Your task to perform on an android device: open app "Messenger Lite" (install if not already installed) and enter user name: "cataclysmic@outlook.com" and password: "victoriously" Image 0: 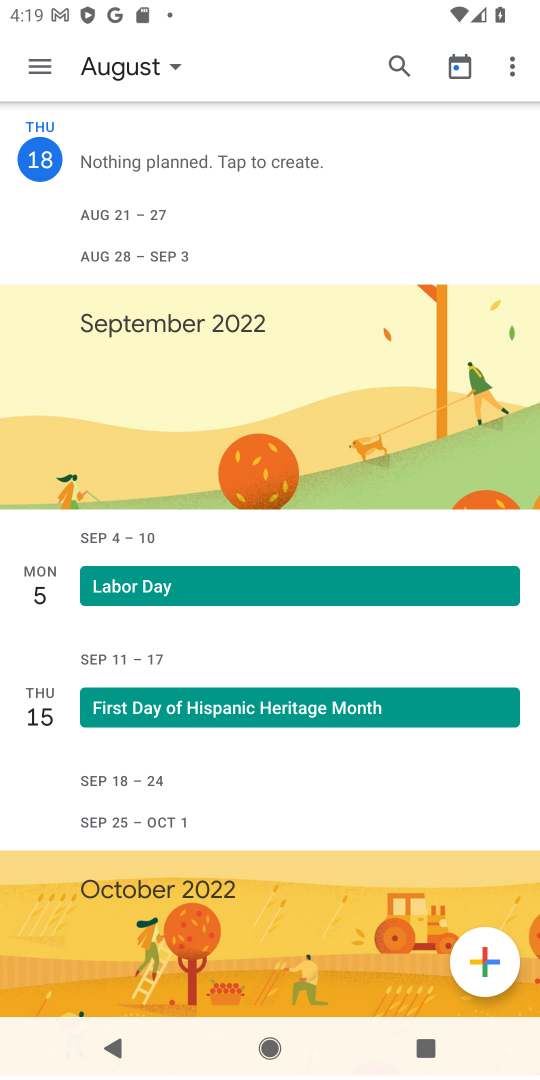
Step 0: press home button
Your task to perform on an android device: open app "Messenger Lite" (install if not already installed) and enter user name: "cataclysmic@outlook.com" and password: "victoriously" Image 1: 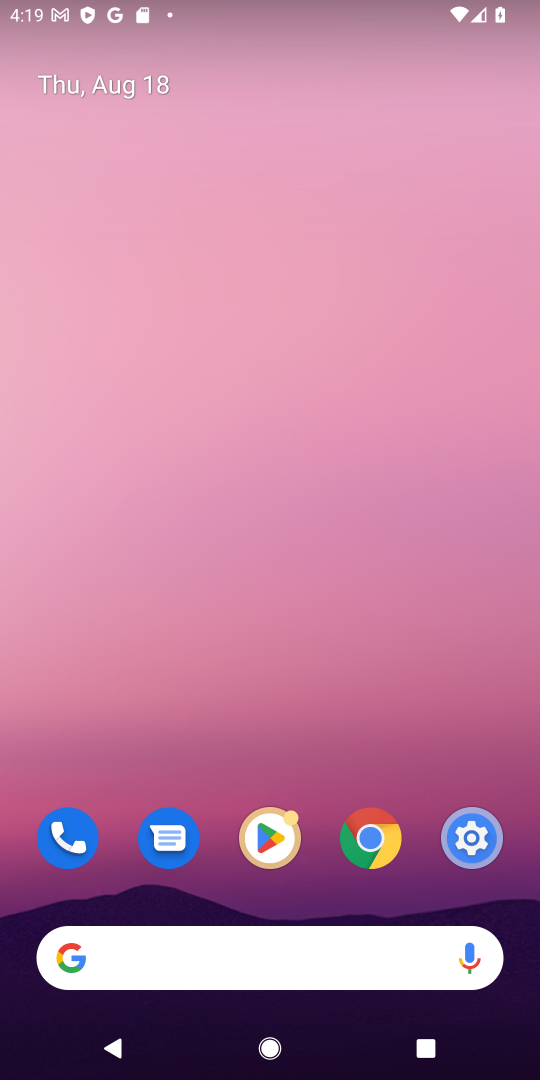
Step 1: drag from (239, 969) to (207, 122)
Your task to perform on an android device: open app "Messenger Lite" (install if not already installed) and enter user name: "cataclysmic@outlook.com" and password: "victoriously" Image 2: 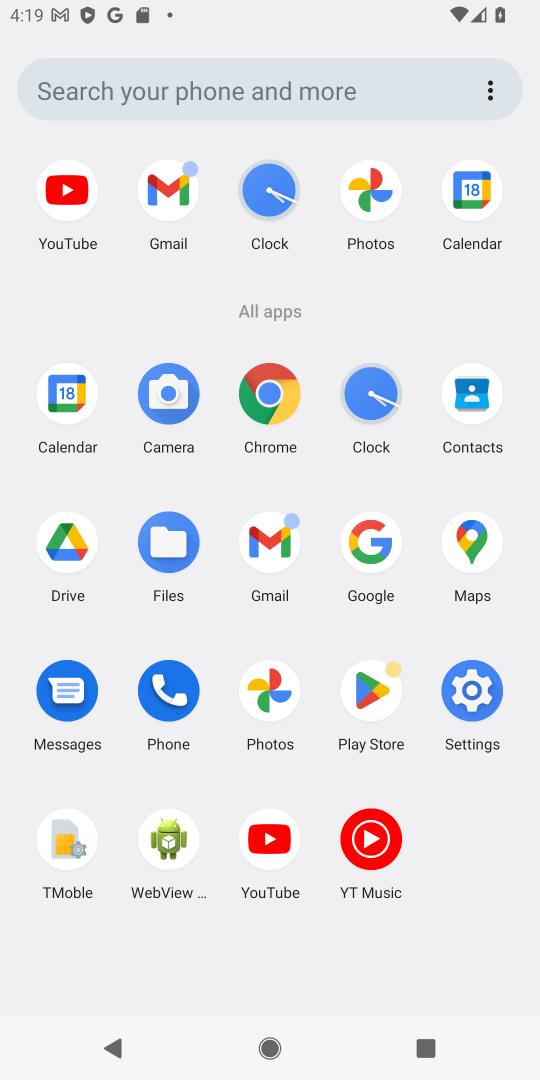
Step 2: click (371, 689)
Your task to perform on an android device: open app "Messenger Lite" (install if not already installed) and enter user name: "cataclysmic@outlook.com" and password: "victoriously" Image 3: 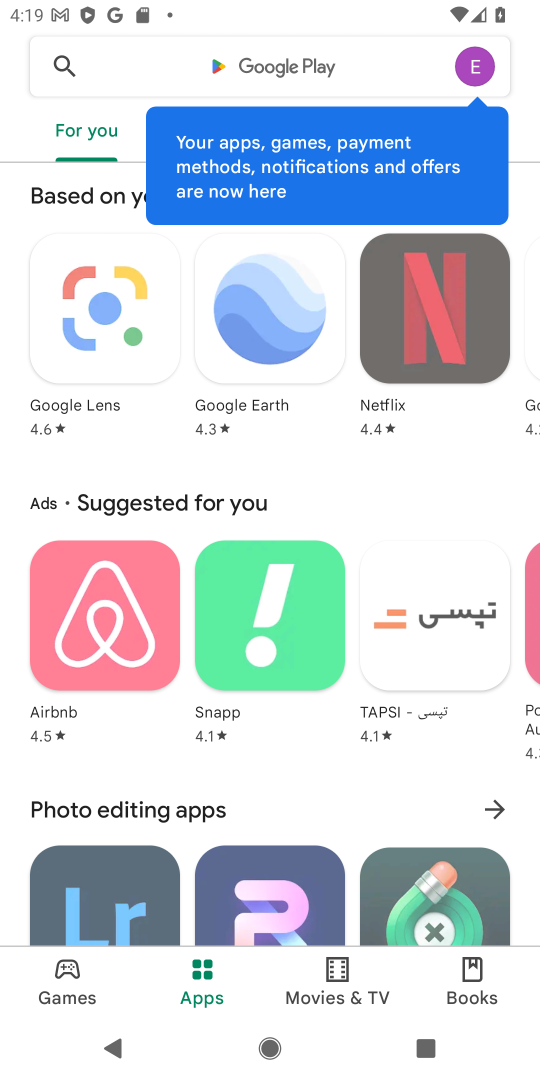
Step 3: click (270, 74)
Your task to perform on an android device: open app "Messenger Lite" (install if not already installed) and enter user name: "cataclysmic@outlook.com" and password: "victoriously" Image 4: 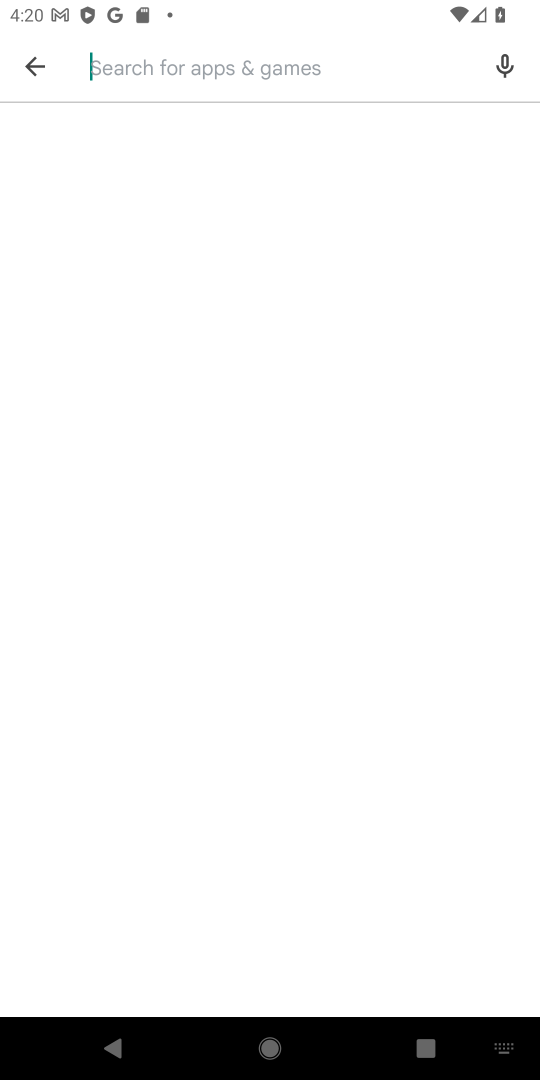
Step 4: type "Messenger Lite"
Your task to perform on an android device: open app "Messenger Lite" (install if not already installed) and enter user name: "cataclysmic@outlook.com" and password: "victoriously" Image 5: 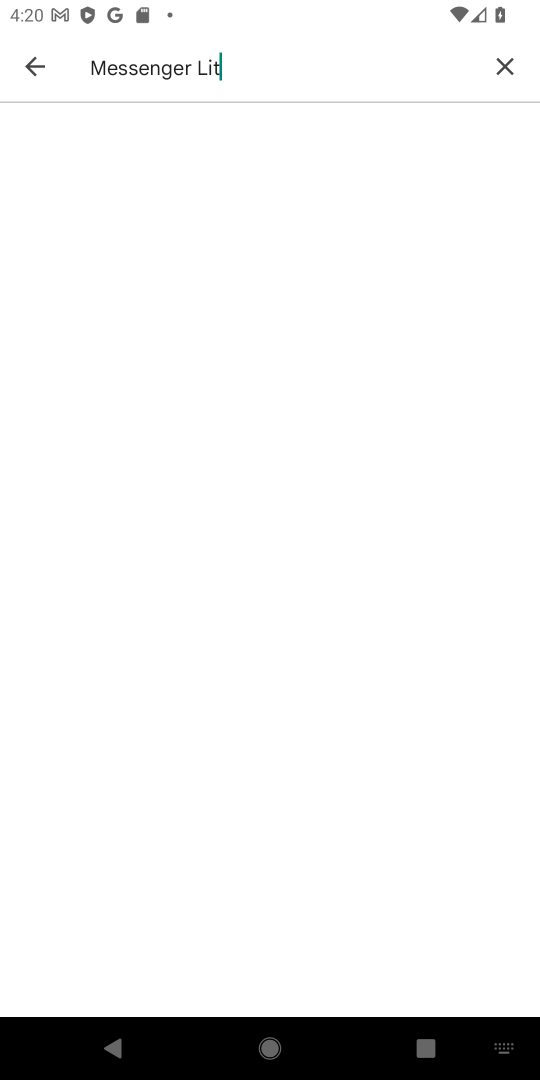
Step 5: type ""
Your task to perform on an android device: open app "Messenger Lite" (install if not already installed) and enter user name: "cataclysmic@outlook.com" and password: "victoriously" Image 6: 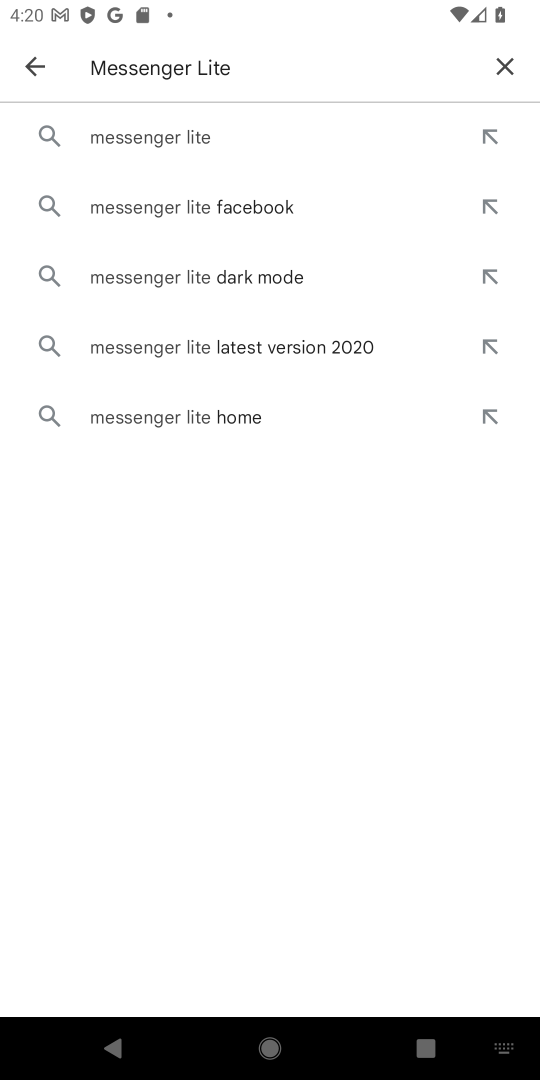
Step 6: click (178, 145)
Your task to perform on an android device: open app "Messenger Lite" (install if not already installed) and enter user name: "cataclysmic@outlook.com" and password: "victoriously" Image 7: 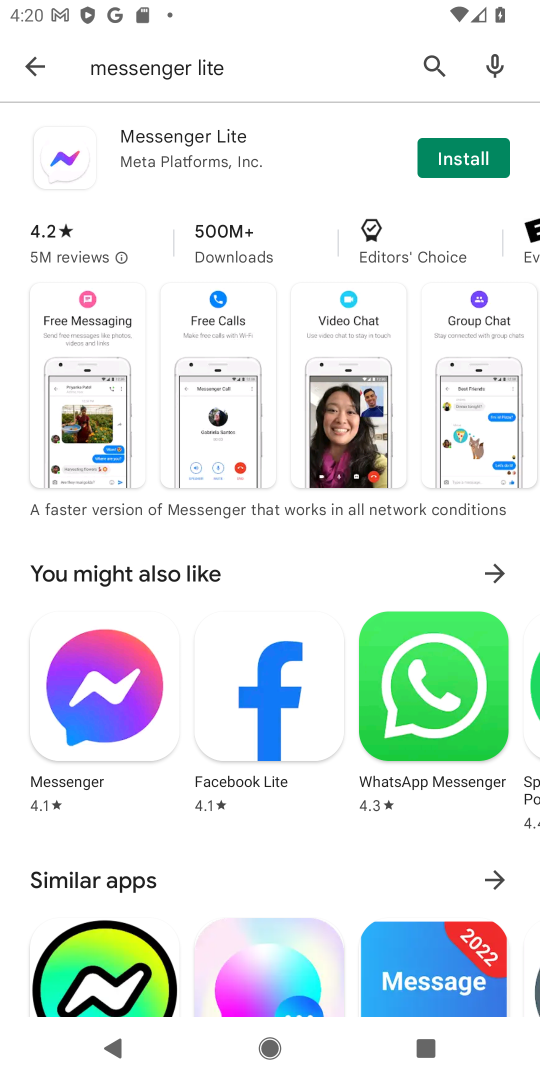
Step 7: click (479, 148)
Your task to perform on an android device: open app "Messenger Lite" (install if not already installed) and enter user name: "cataclysmic@outlook.com" and password: "victoriously" Image 8: 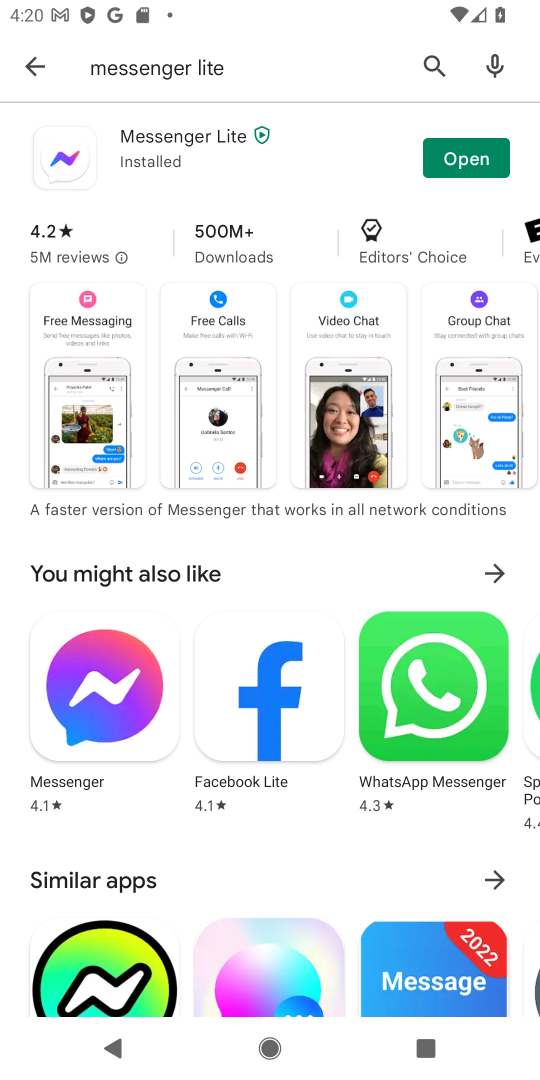
Step 8: click (492, 168)
Your task to perform on an android device: open app "Messenger Lite" (install if not already installed) and enter user name: "cataclysmic@outlook.com" and password: "victoriously" Image 9: 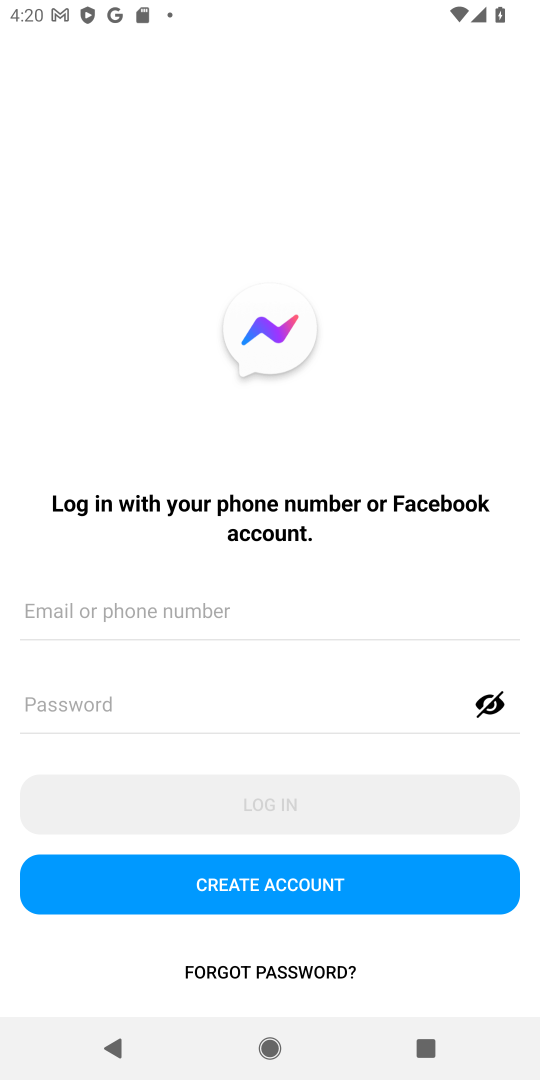
Step 9: click (136, 595)
Your task to perform on an android device: open app "Messenger Lite" (install if not already installed) and enter user name: "cataclysmic@outlook.com" and password: "victoriously" Image 10: 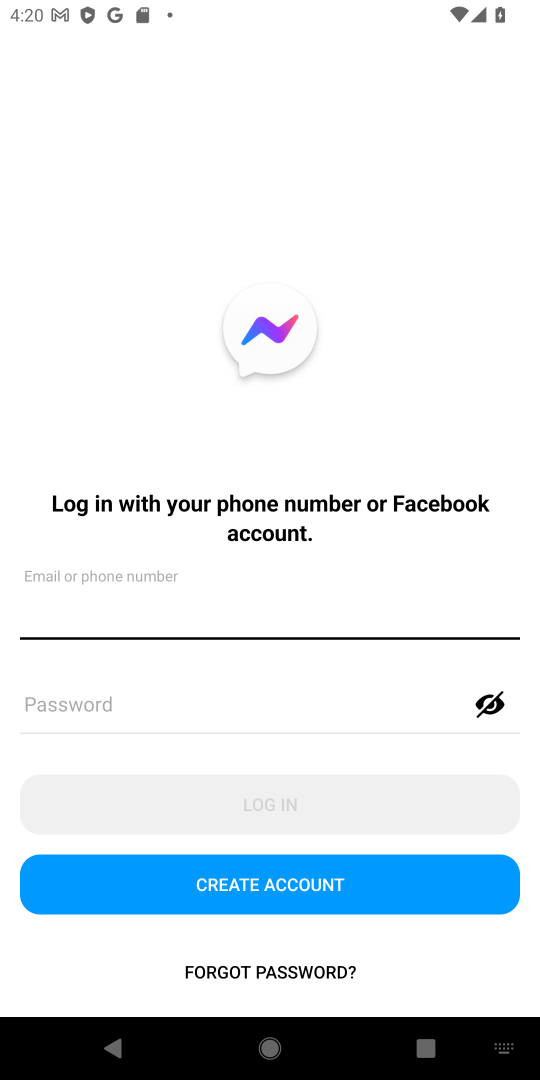
Step 10: type "cataclysmic@outlook.com"
Your task to perform on an android device: open app "Messenger Lite" (install if not already installed) and enter user name: "cataclysmic@outlook.com" and password: "victoriously" Image 11: 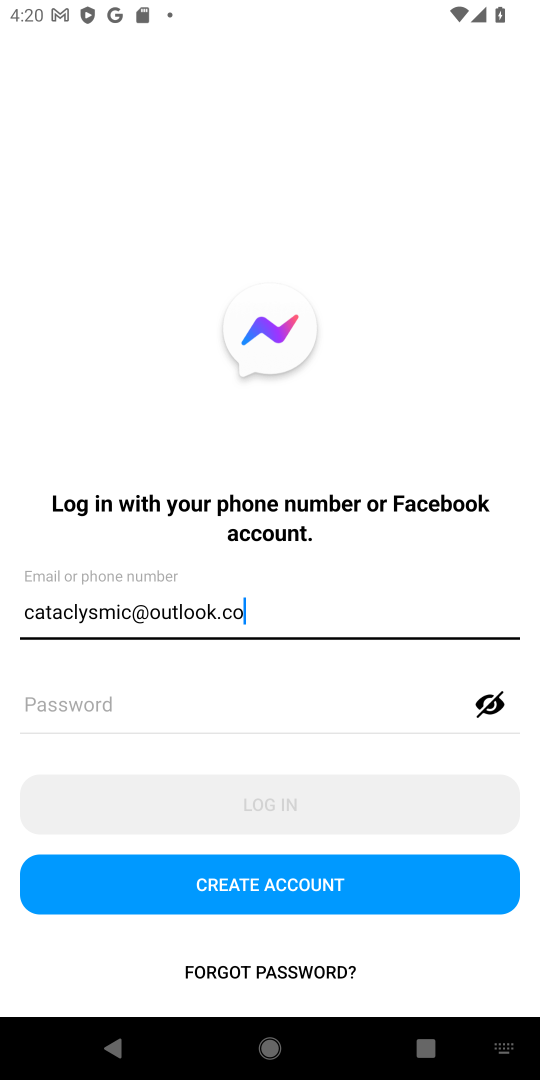
Step 11: type ""
Your task to perform on an android device: open app "Messenger Lite" (install if not already installed) and enter user name: "cataclysmic@outlook.com" and password: "victoriously" Image 12: 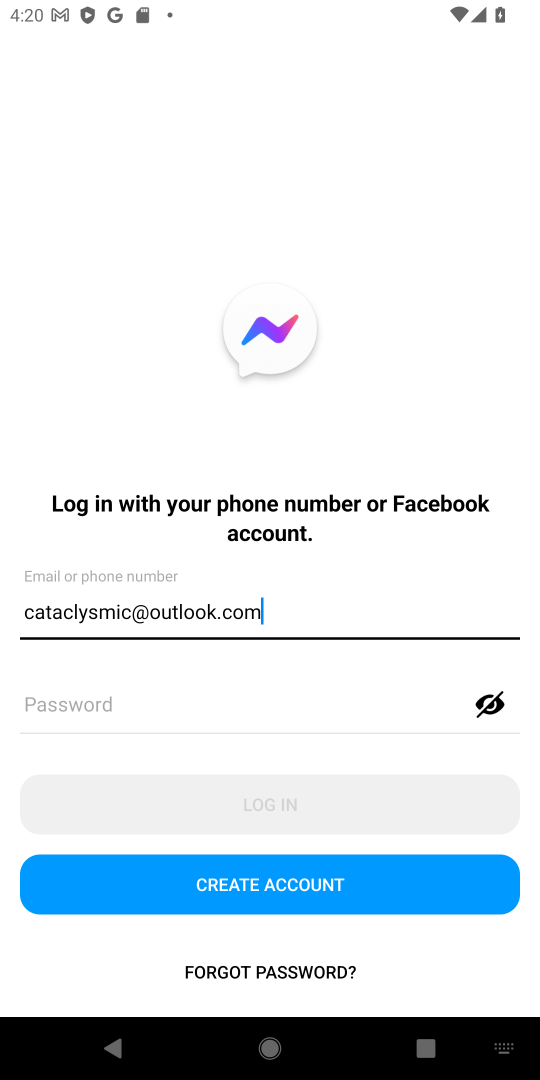
Step 12: click (110, 709)
Your task to perform on an android device: open app "Messenger Lite" (install if not already installed) and enter user name: "cataclysmic@outlook.com" and password: "victoriously" Image 13: 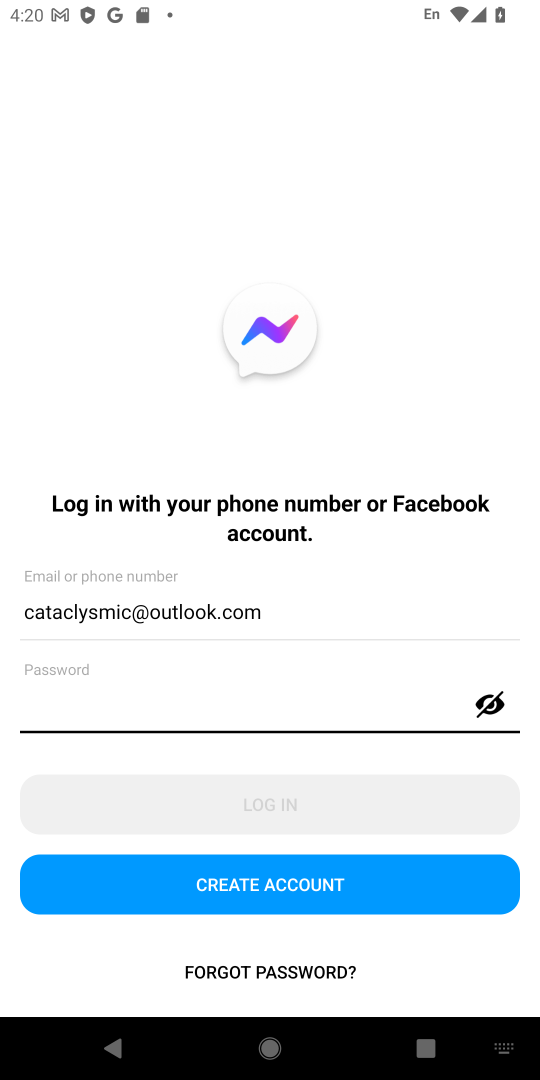
Step 13: type "victoriously"
Your task to perform on an android device: open app "Messenger Lite" (install if not already installed) and enter user name: "cataclysmic@outlook.com" and password: "victoriously" Image 14: 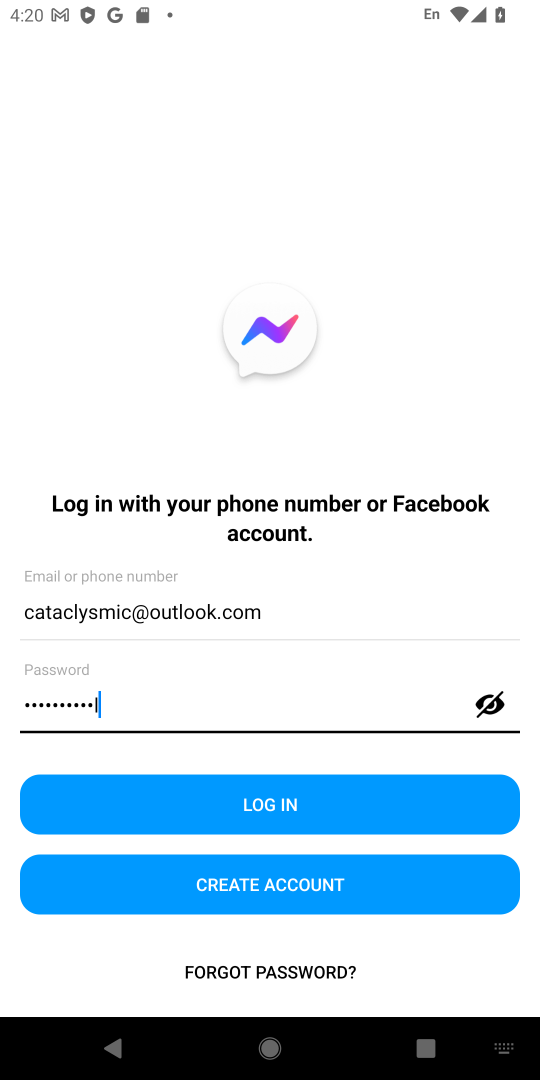
Step 14: type ""
Your task to perform on an android device: open app "Messenger Lite" (install if not already installed) and enter user name: "cataclysmic@outlook.com" and password: "victoriously" Image 15: 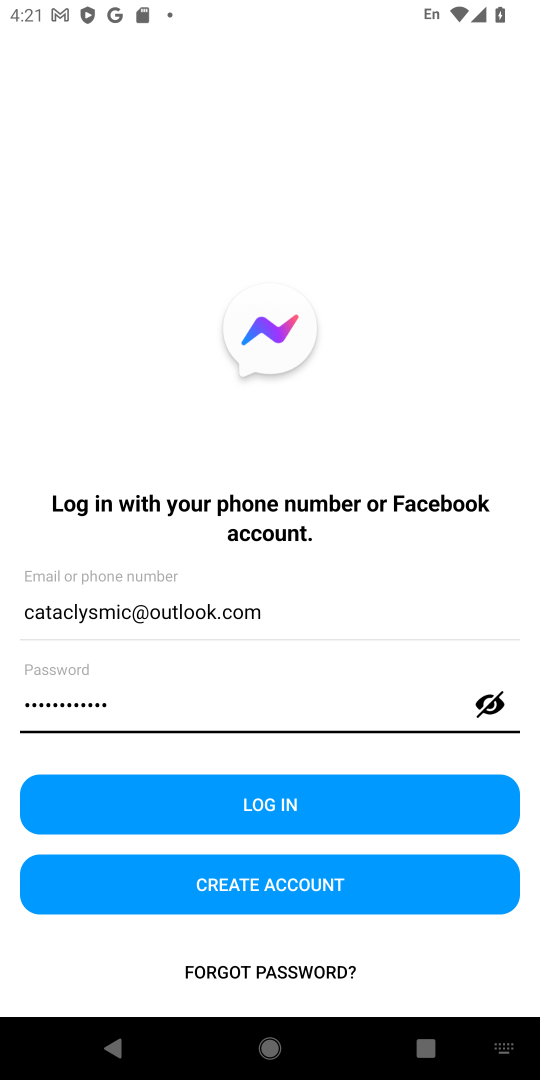
Step 15: task complete